Your task to perform on an android device: check battery use Image 0: 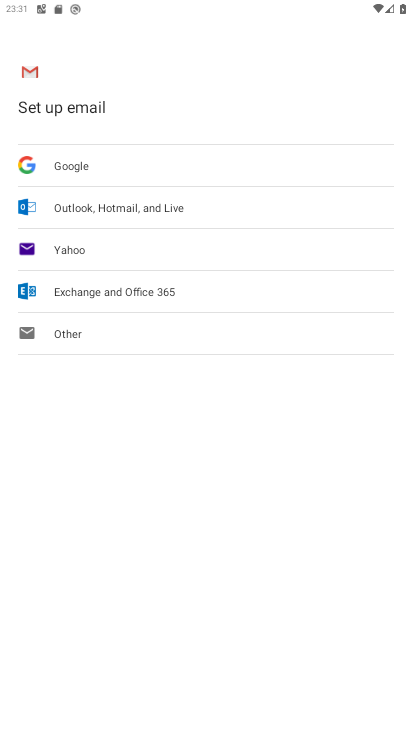
Step 0: press home button
Your task to perform on an android device: check battery use Image 1: 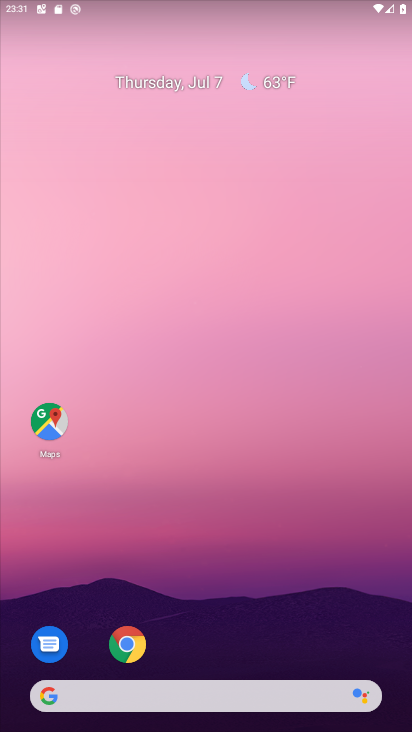
Step 1: drag from (197, 729) to (214, 63)
Your task to perform on an android device: check battery use Image 2: 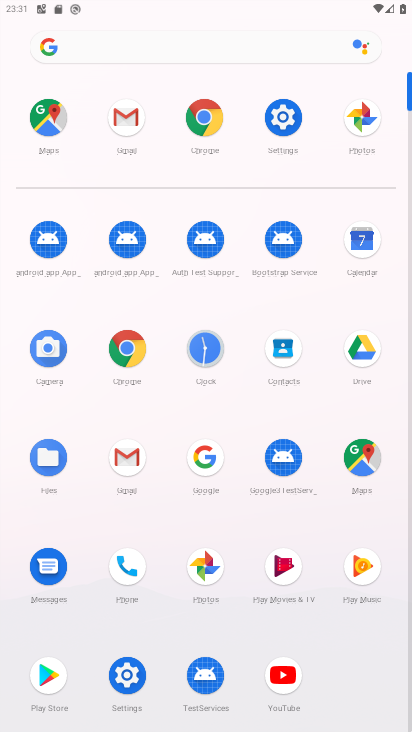
Step 2: click (281, 123)
Your task to perform on an android device: check battery use Image 3: 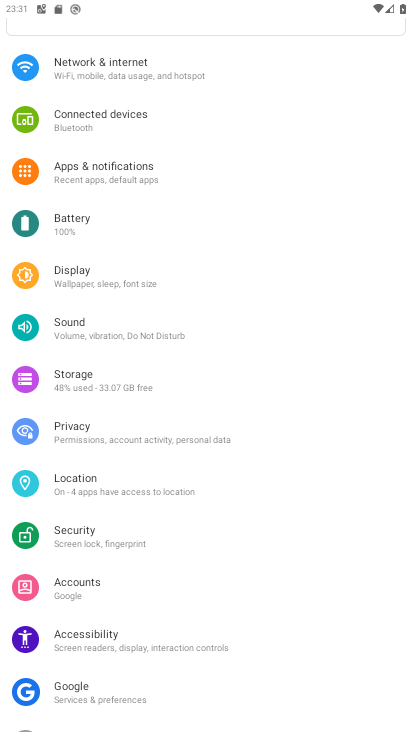
Step 3: click (72, 224)
Your task to perform on an android device: check battery use Image 4: 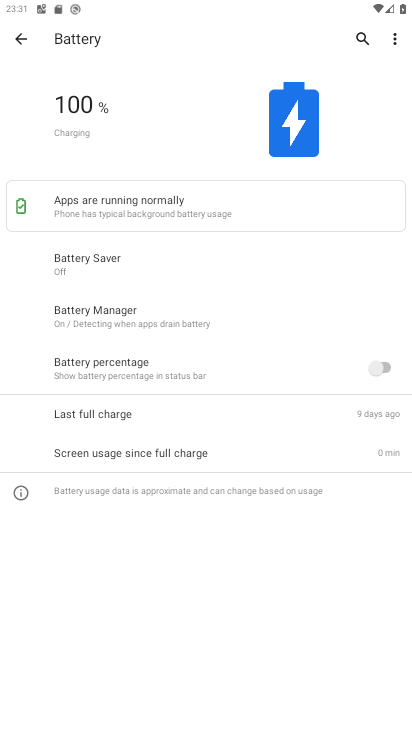
Step 4: click (397, 33)
Your task to perform on an android device: check battery use Image 5: 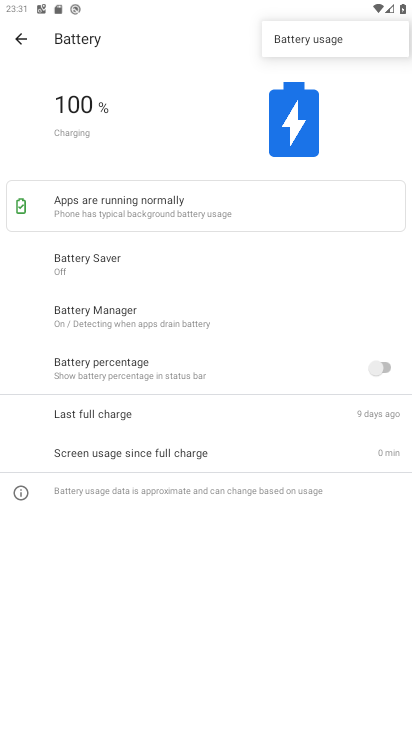
Step 5: click (314, 38)
Your task to perform on an android device: check battery use Image 6: 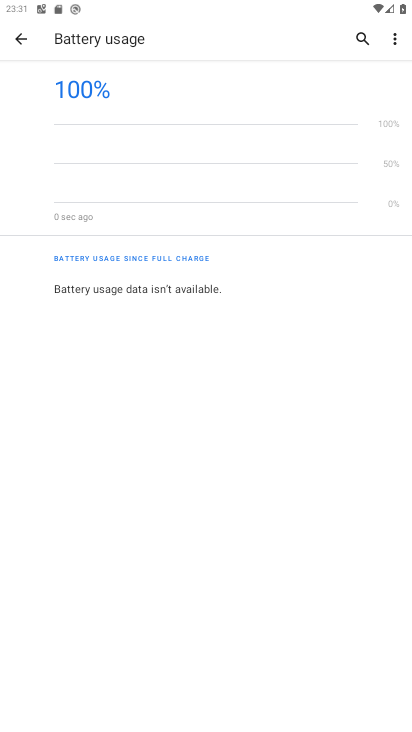
Step 6: task complete